Your task to perform on an android device: check battery use Image 0: 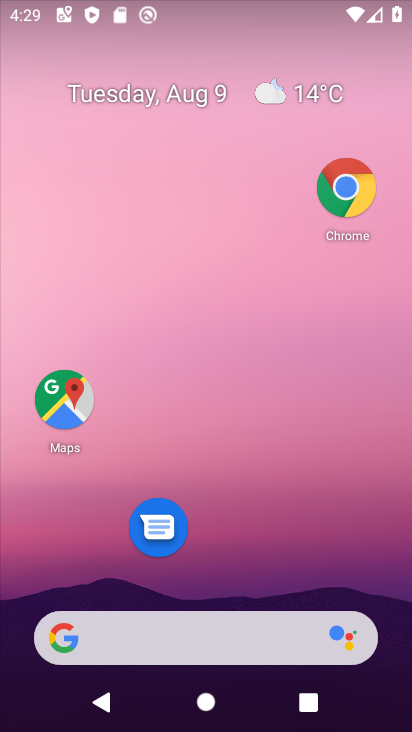
Step 0: drag from (168, 568) to (173, 101)
Your task to perform on an android device: check battery use Image 1: 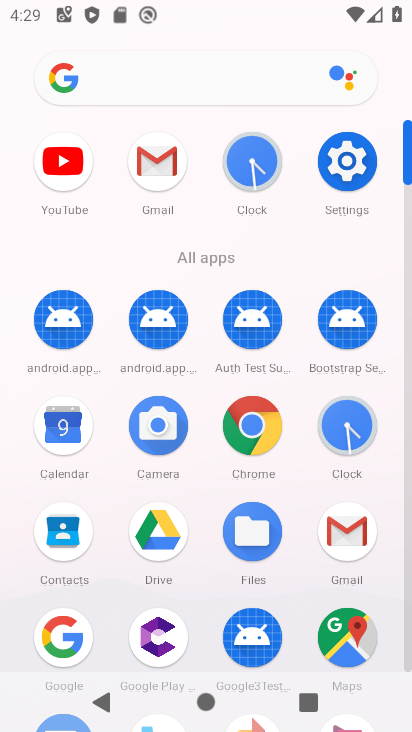
Step 1: click (351, 173)
Your task to perform on an android device: check battery use Image 2: 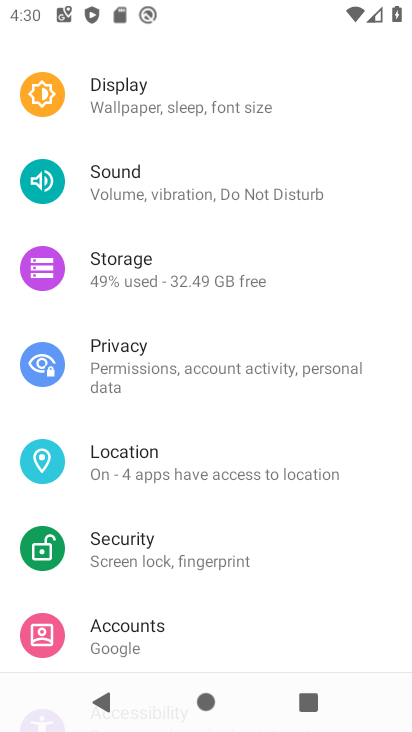
Step 2: drag from (188, 614) to (197, 264)
Your task to perform on an android device: check battery use Image 3: 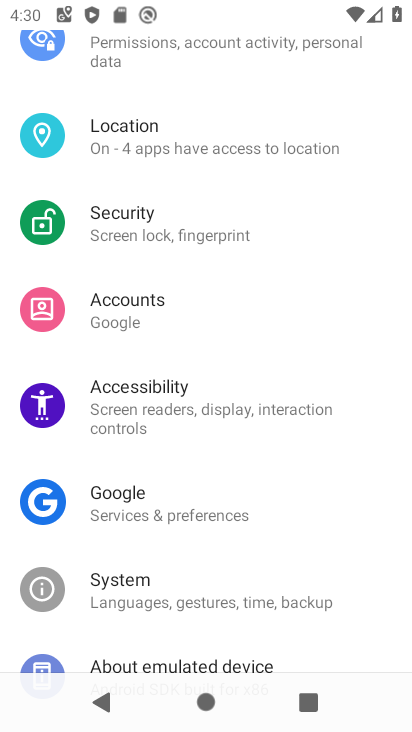
Step 3: drag from (200, 582) to (198, 249)
Your task to perform on an android device: check battery use Image 4: 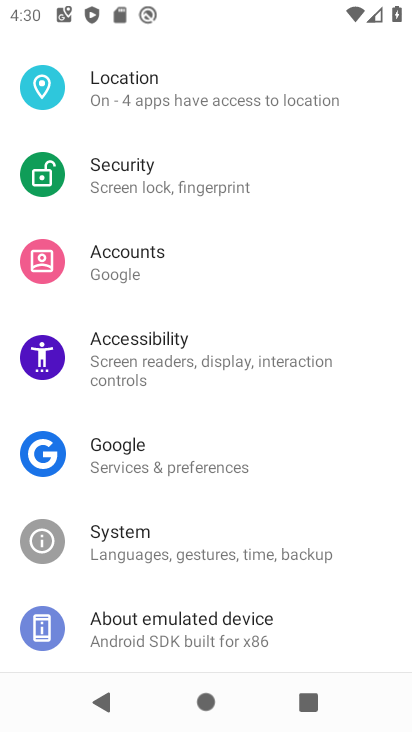
Step 4: drag from (170, 146) to (198, 638)
Your task to perform on an android device: check battery use Image 5: 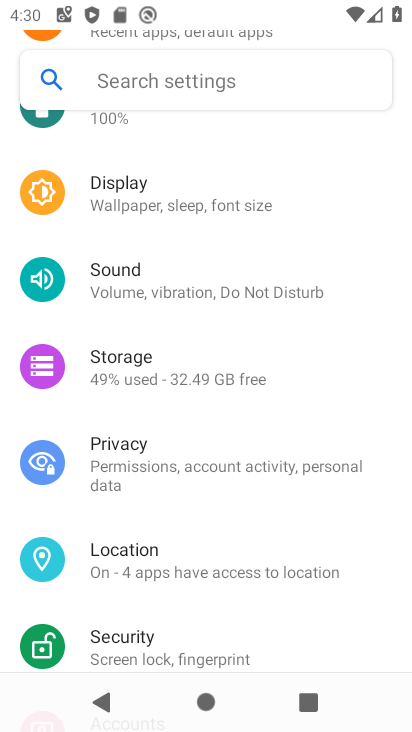
Step 5: drag from (241, 185) to (288, 588)
Your task to perform on an android device: check battery use Image 6: 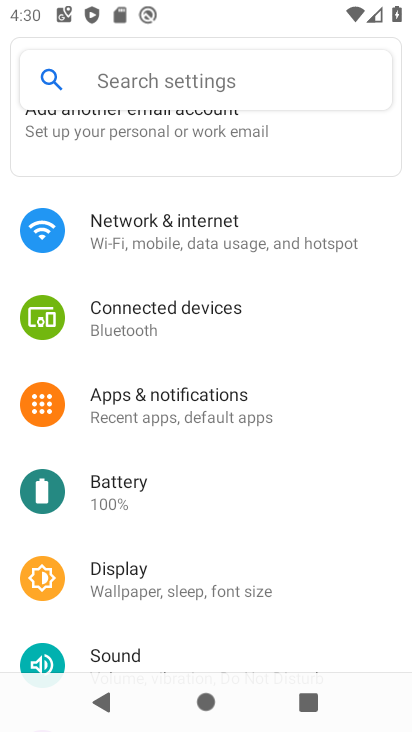
Step 6: click (192, 478)
Your task to perform on an android device: check battery use Image 7: 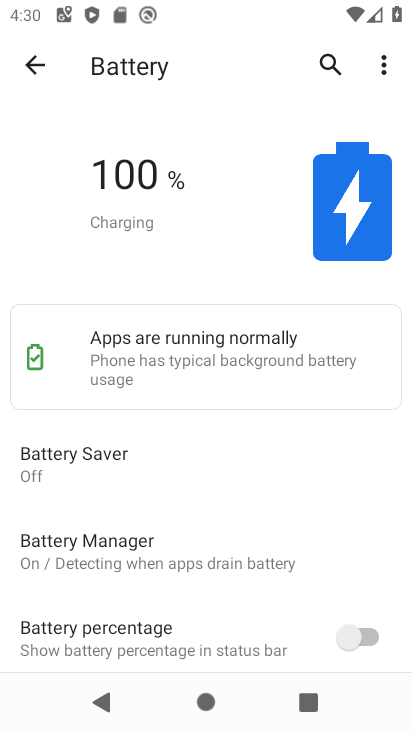
Step 7: task complete